Your task to perform on an android device: Go to ESPN.com Image 0: 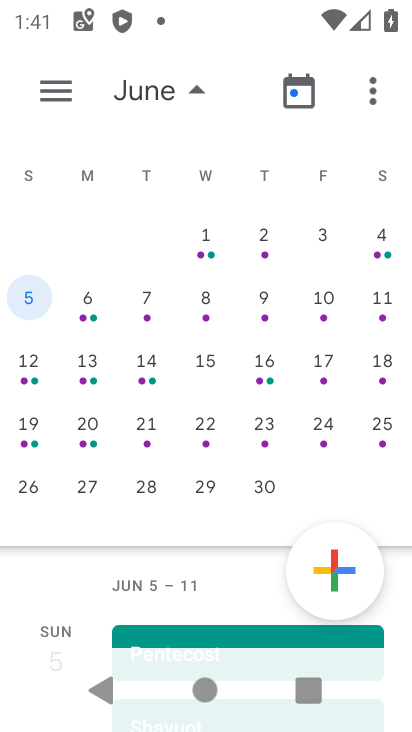
Step 0: press home button
Your task to perform on an android device: Go to ESPN.com Image 1: 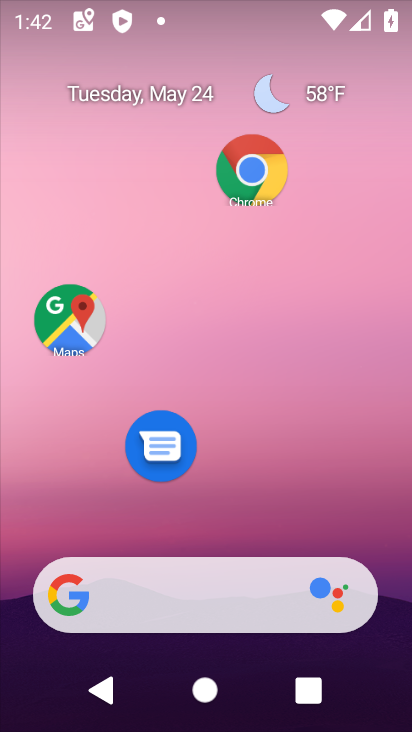
Step 1: click (274, 183)
Your task to perform on an android device: Go to ESPN.com Image 2: 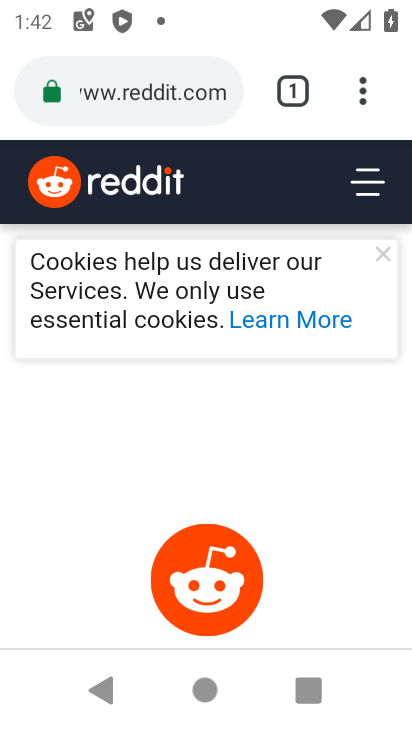
Step 2: click (199, 98)
Your task to perform on an android device: Go to ESPN.com Image 3: 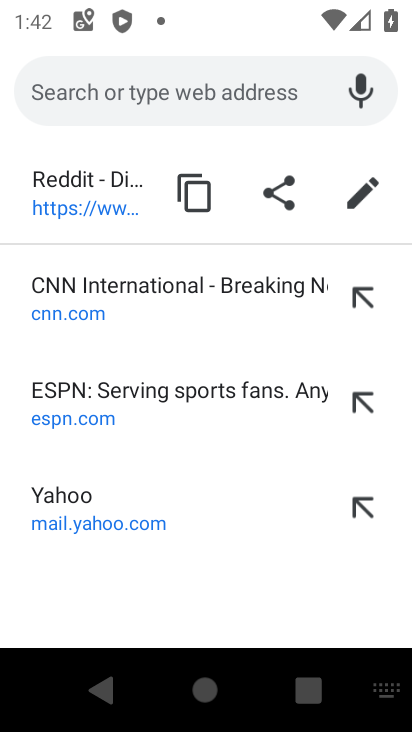
Step 3: click (287, 403)
Your task to perform on an android device: Go to ESPN.com Image 4: 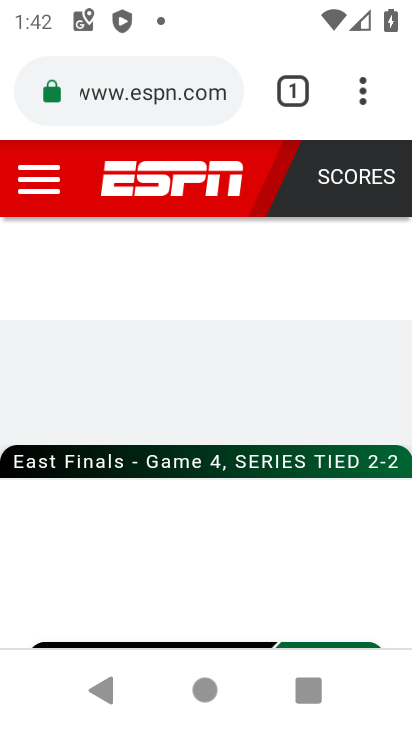
Step 4: task complete